Your task to perform on an android device: uninstall "Gboard" Image 0: 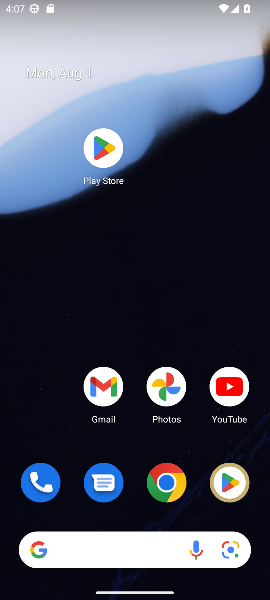
Step 0: click (108, 148)
Your task to perform on an android device: uninstall "Gboard" Image 1: 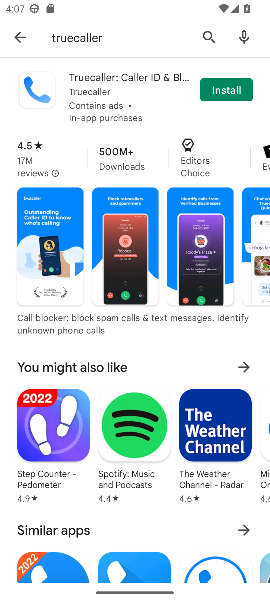
Step 1: click (210, 32)
Your task to perform on an android device: uninstall "Gboard" Image 2: 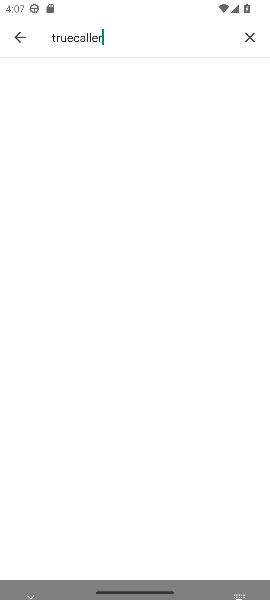
Step 2: click (206, 35)
Your task to perform on an android device: uninstall "Gboard" Image 3: 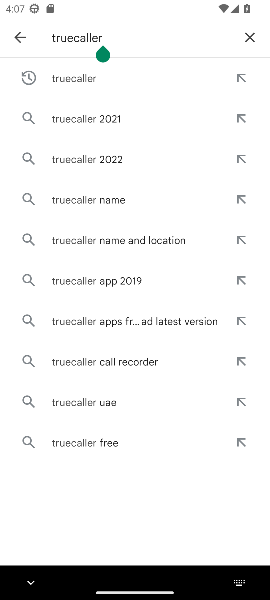
Step 3: click (252, 33)
Your task to perform on an android device: uninstall "Gboard" Image 4: 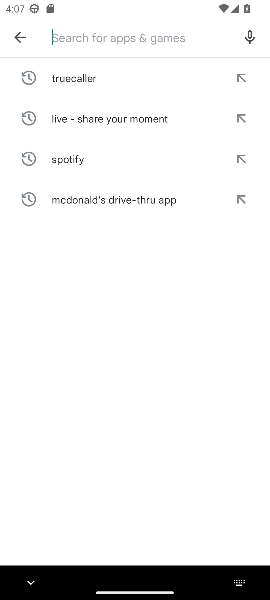
Step 4: type "Gboard"
Your task to perform on an android device: uninstall "Gboard" Image 5: 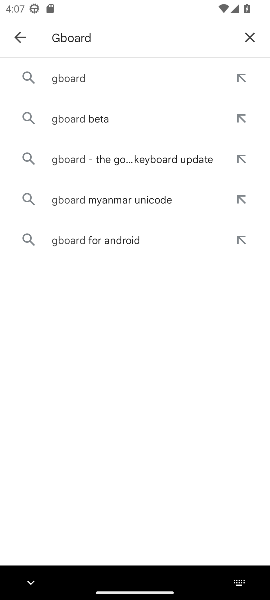
Step 5: click (76, 72)
Your task to perform on an android device: uninstall "Gboard" Image 6: 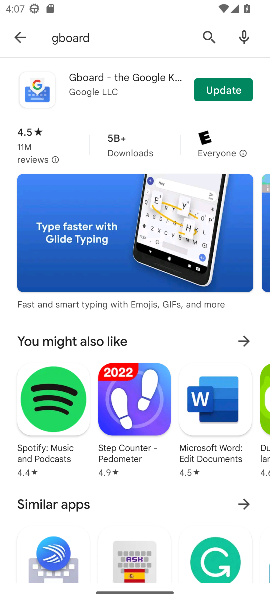
Step 6: click (53, 89)
Your task to perform on an android device: uninstall "Gboard" Image 7: 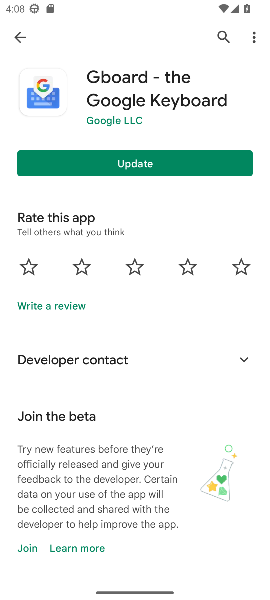
Step 7: task complete